Your task to perform on an android device: Open display settings Image 0: 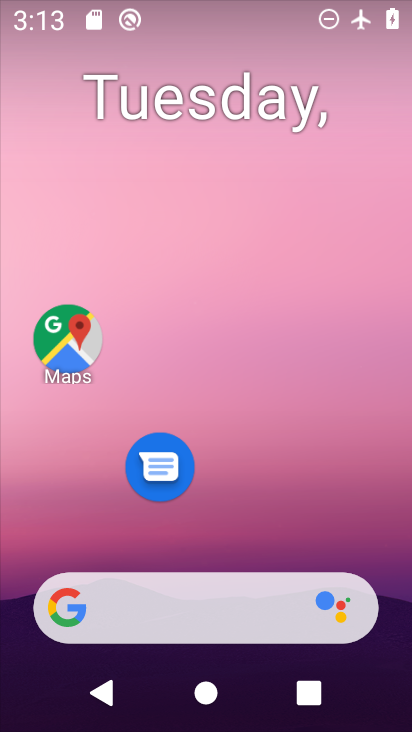
Step 0: drag from (285, 524) to (296, 77)
Your task to perform on an android device: Open display settings Image 1: 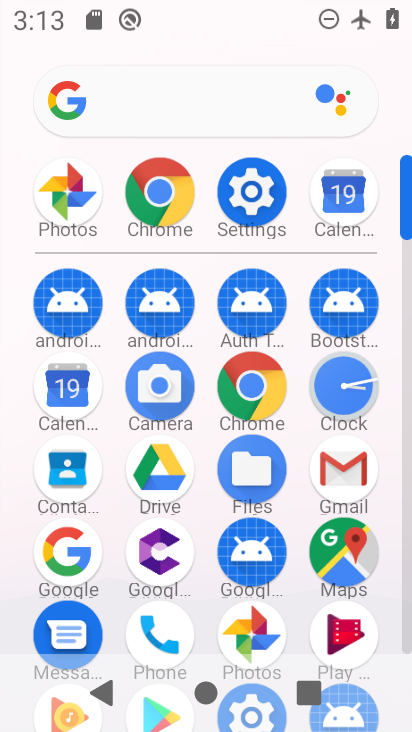
Step 1: click (242, 185)
Your task to perform on an android device: Open display settings Image 2: 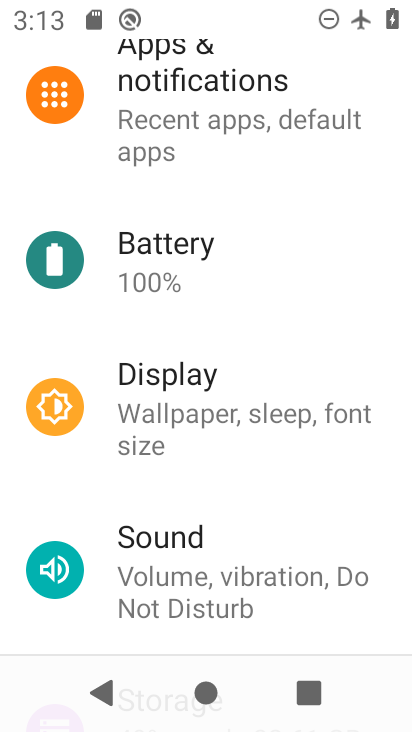
Step 2: click (159, 381)
Your task to perform on an android device: Open display settings Image 3: 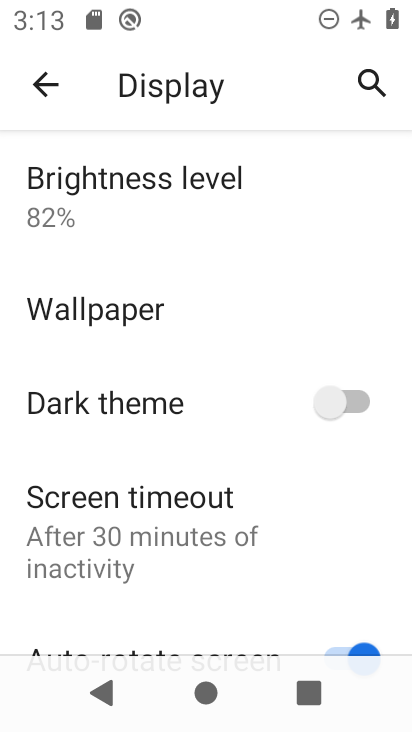
Step 3: task complete